Your task to perform on an android device: stop showing notifications on the lock screen Image 0: 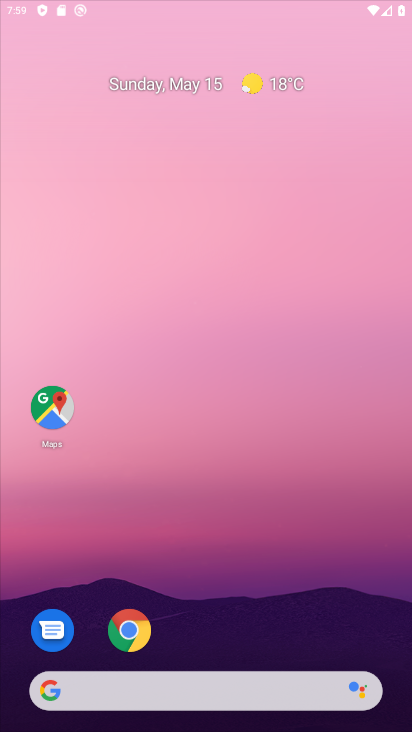
Step 0: click (218, 150)
Your task to perform on an android device: stop showing notifications on the lock screen Image 1: 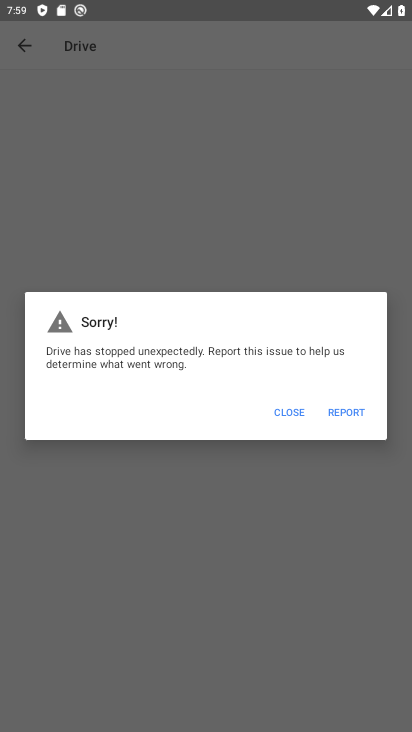
Step 1: press home button
Your task to perform on an android device: stop showing notifications on the lock screen Image 2: 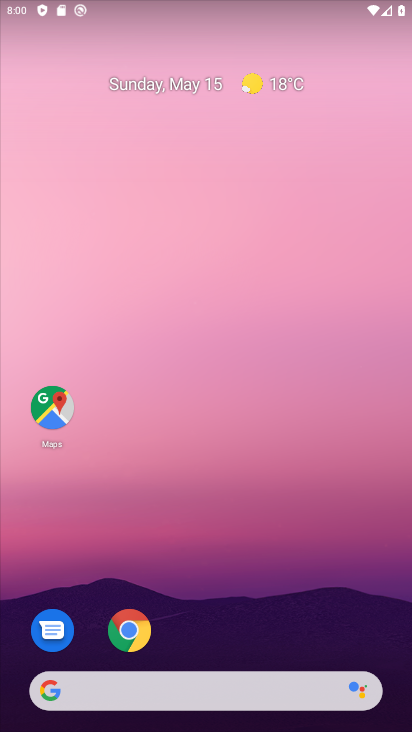
Step 2: drag from (202, 623) to (234, 154)
Your task to perform on an android device: stop showing notifications on the lock screen Image 3: 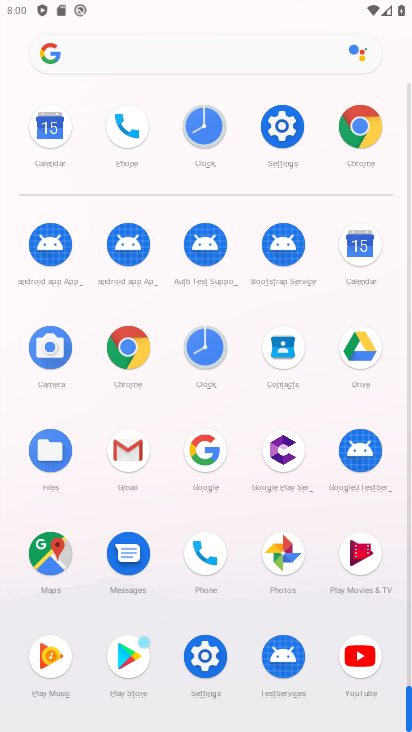
Step 3: click (291, 123)
Your task to perform on an android device: stop showing notifications on the lock screen Image 4: 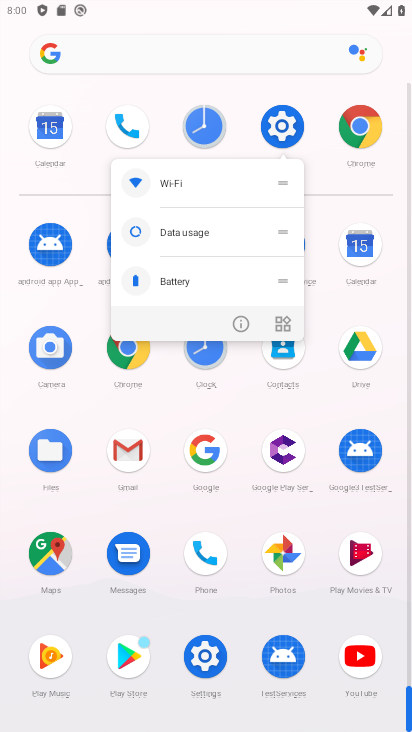
Step 4: click (248, 329)
Your task to perform on an android device: stop showing notifications on the lock screen Image 5: 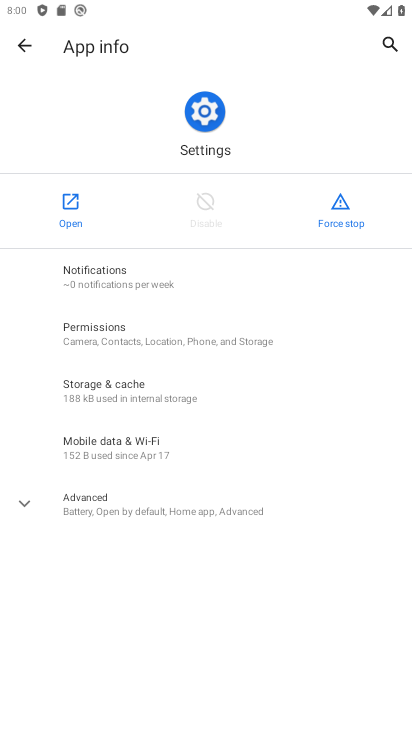
Step 5: click (79, 208)
Your task to perform on an android device: stop showing notifications on the lock screen Image 6: 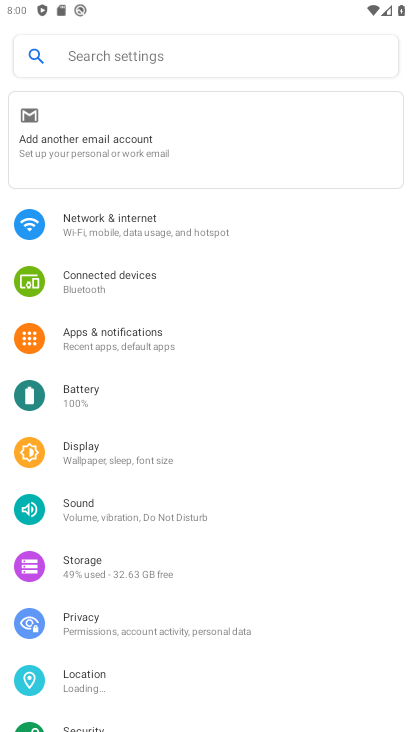
Step 6: drag from (136, 650) to (288, 178)
Your task to perform on an android device: stop showing notifications on the lock screen Image 7: 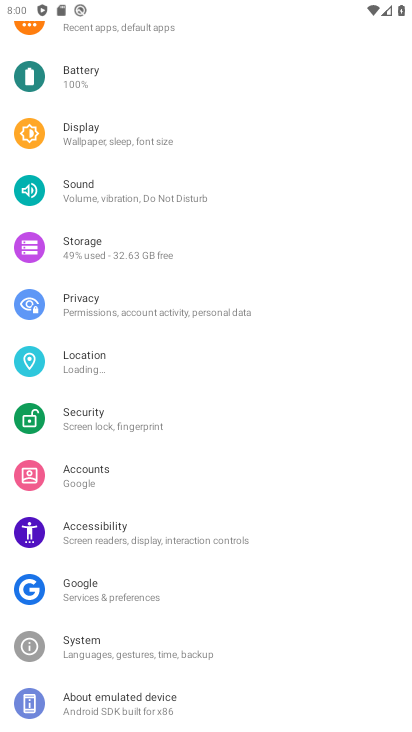
Step 7: drag from (164, 146) to (175, 681)
Your task to perform on an android device: stop showing notifications on the lock screen Image 8: 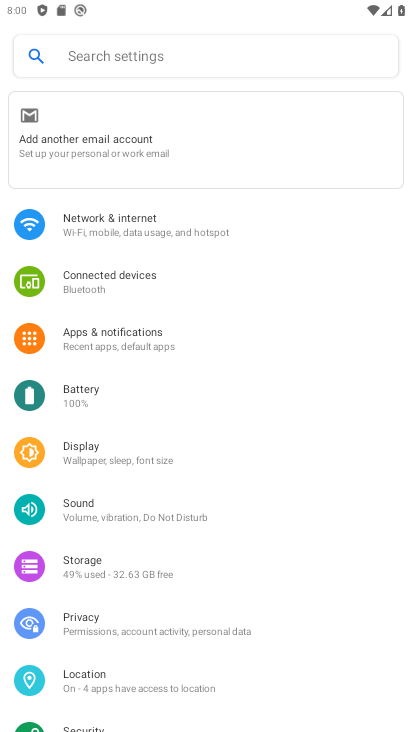
Step 8: click (178, 333)
Your task to perform on an android device: stop showing notifications on the lock screen Image 9: 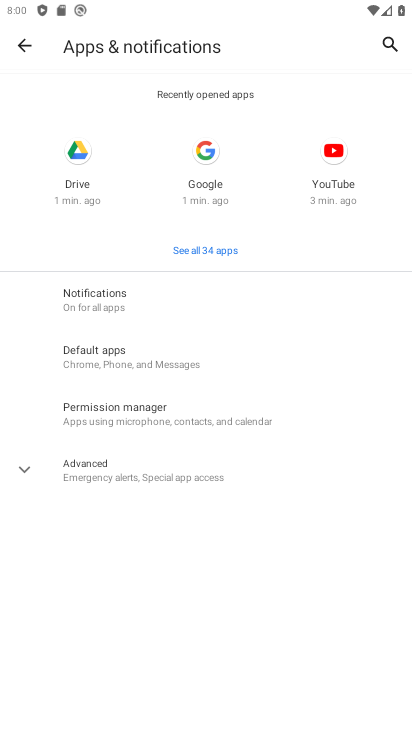
Step 9: click (169, 295)
Your task to perform on an android device: stop showing notifications on the lock screen Image 10: 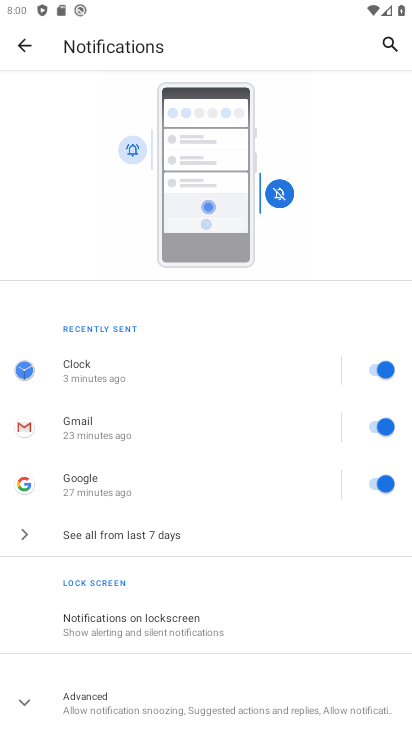
Step 10: click (213, 625)
Your task to perform on an android device: stop showing notifications on the lock screen Image 11: 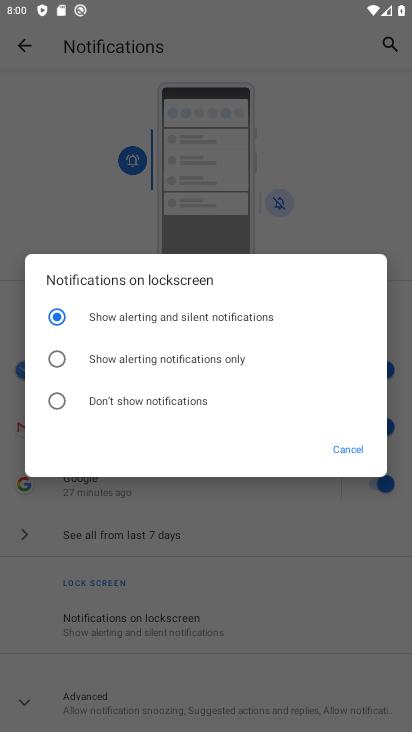
Step 11: click (79, 397)
Your task to perform on an android device: stop showing notifications on the lock screen Image 12: 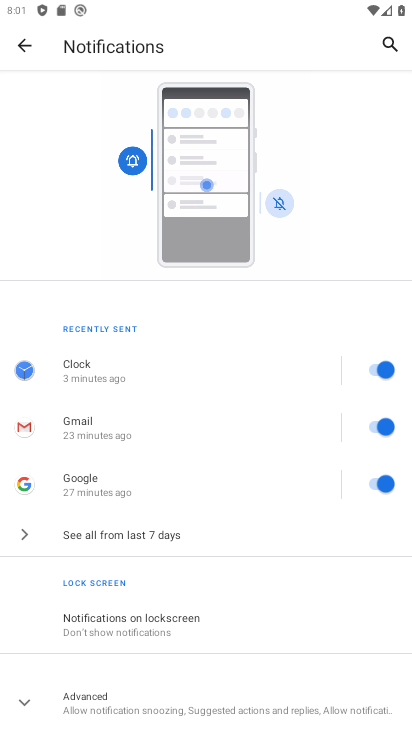
Step 12: task complete